Your task to perform on an android device: Turn on the flashlight Image 0: 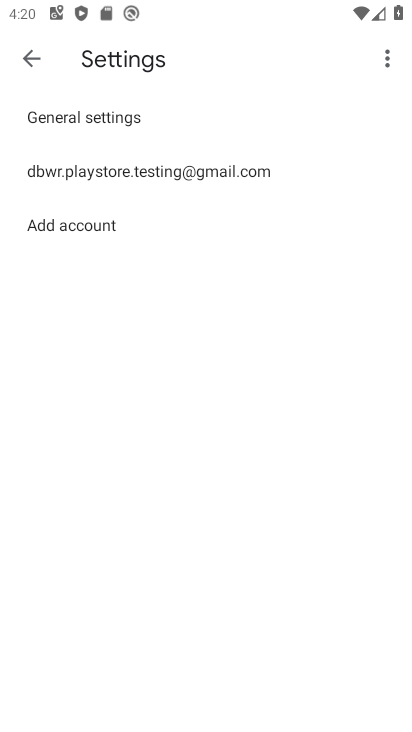
Step 0: press home button
Your task to perform on an android device: Turn on the flashlight Image 1: 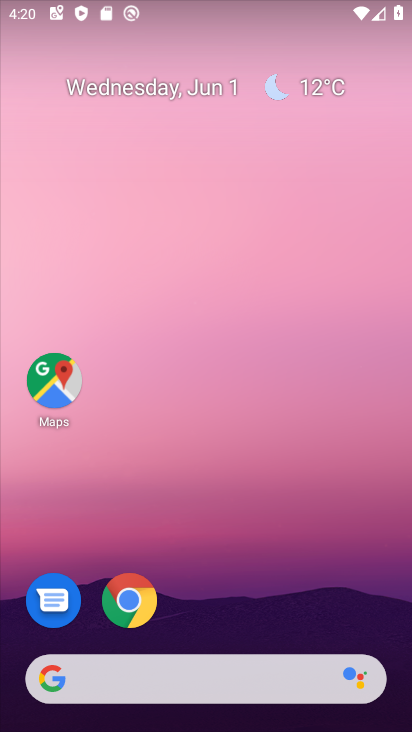
Step 1: drag from (239, 11) to (221, 502)
Your task to perform on an android device: Turn on the flashlight Image 2: 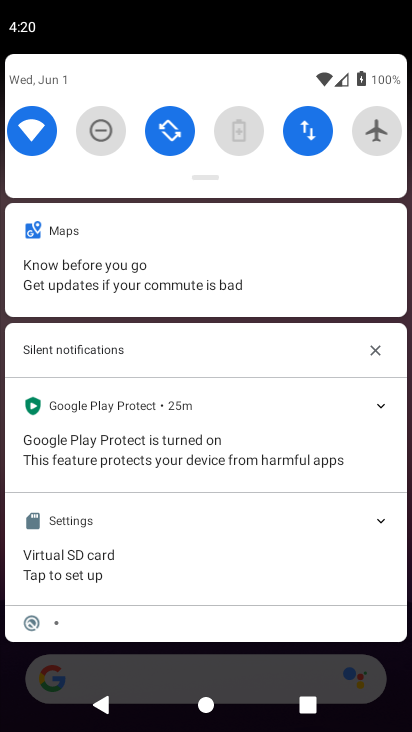
Step 2: drag from (206, 180) to (201, 522)
Your task to perform on an android device: Turn on the flashlight Image 3: 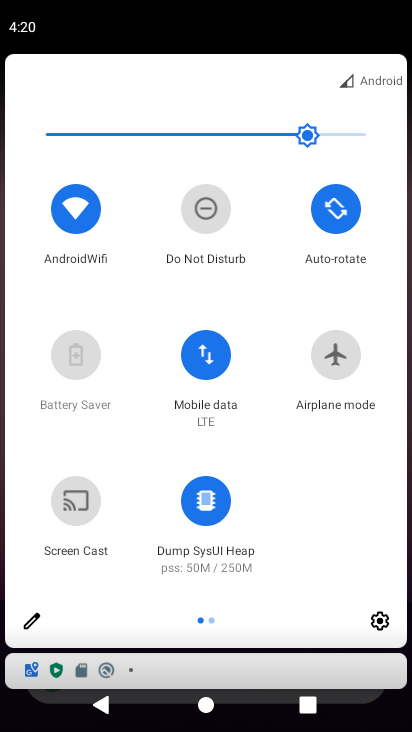
Step 3: click (26, 617)
Your task to perform on an android device: Turn on the flashlight Image 4: 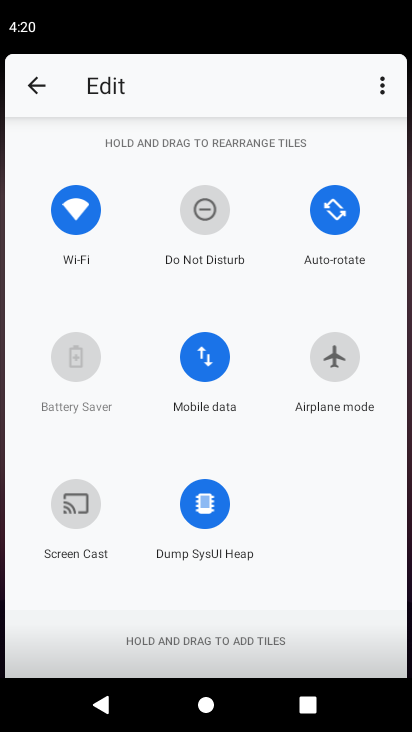
Step 4: task complete